Your task to perform on an android device: allow notifications from all sites in the chrome app Image 0: 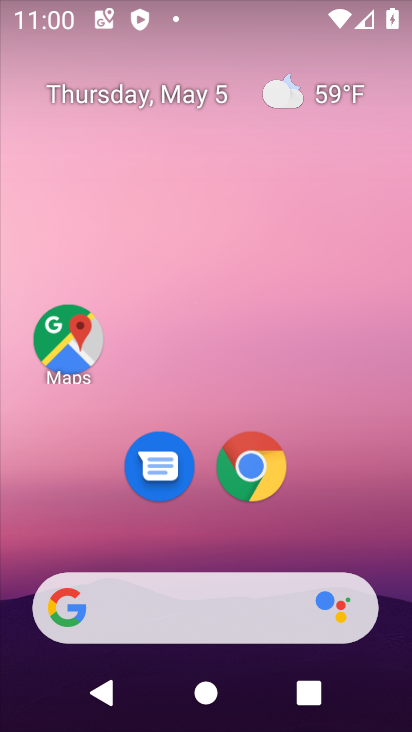
Step 0: click (268, 478)
Your task to perform on an android device: allow notifications from all sites in the chrome app Image 1: 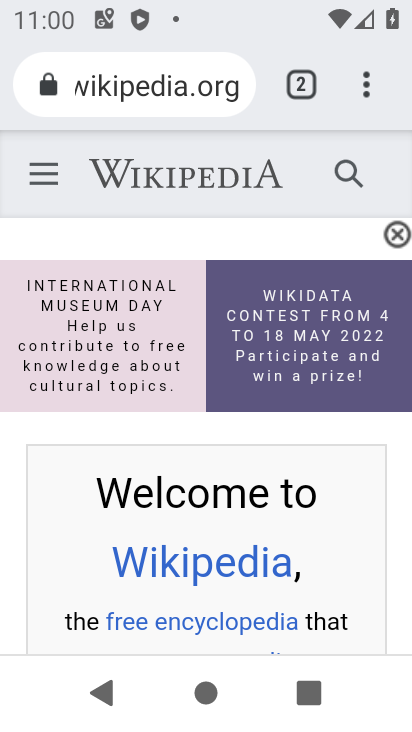
Step 1: press home button
Your task to perform on an android device: allow notifications from all sites in the chrome app Image 2: 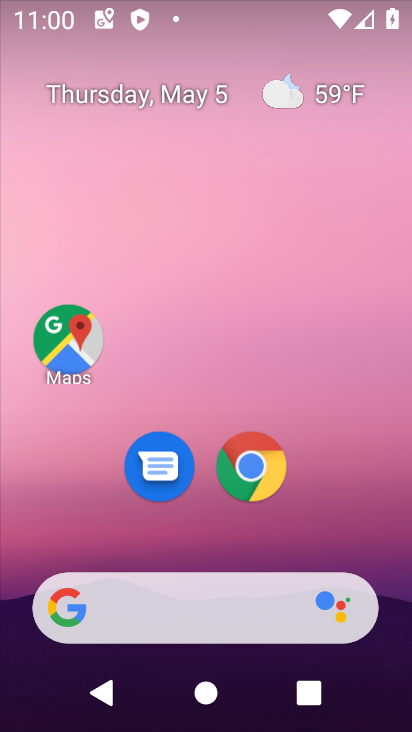
Step 2: click (268, 470)
Your task to perform on an android device: allow notifications from all sites in the chrome app Image 3: 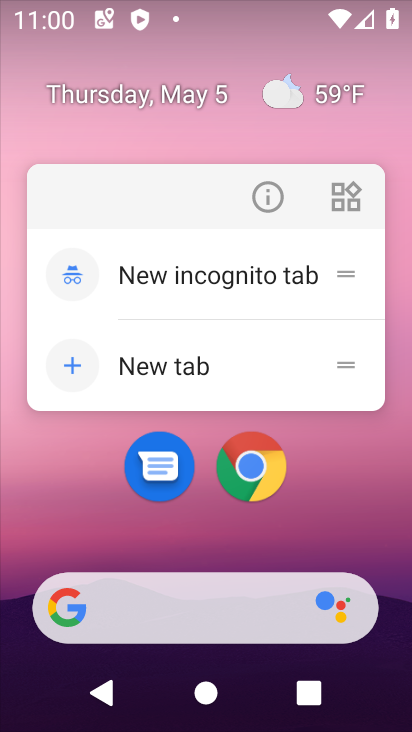
Step 3: click (275, 214)
Your task to perform on an android device: allow notifications from all sites in the chrome app Image 4: 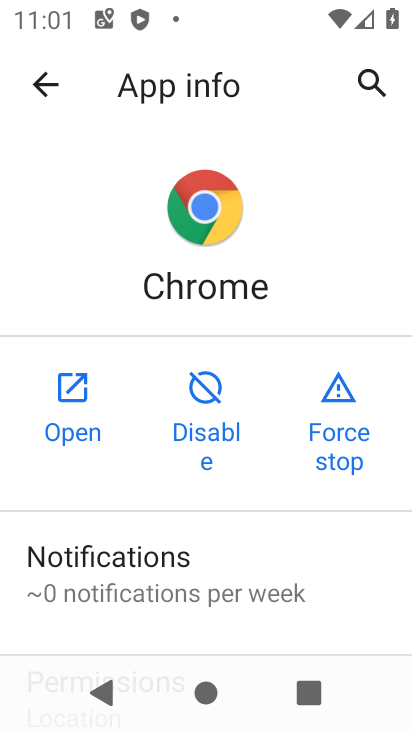
Step 4: drag from (230, 590) to (233, 254)
Your task to perform on an android device: allow notifications from all sites in the chrome app Image 5: 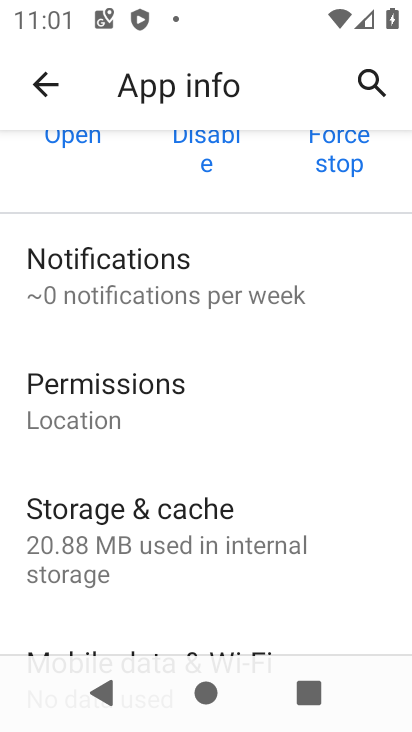
Step 5: click (153, 281)
Your task to perform on an android device: allow notifications from all sites in the chrome app Image 6: 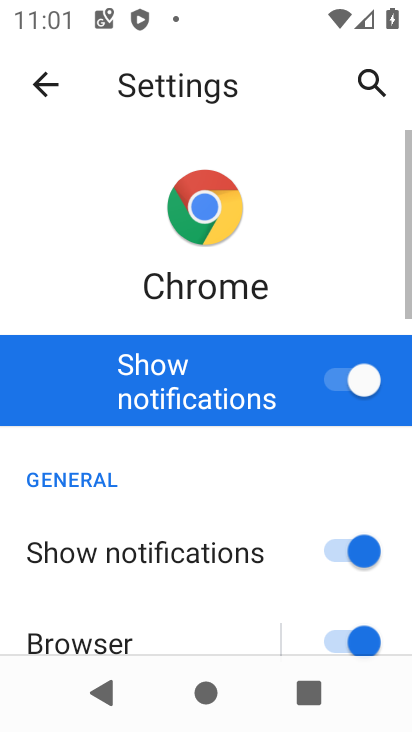
Step 6: task complete